Your task to perform on an android device: turn on translation in the chrome app Image 0: 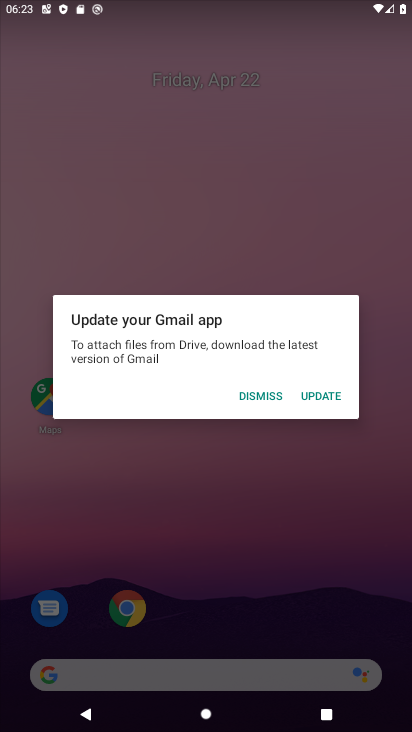
Step 0: drag from (263, 594) to (244, 275)
Your task to perform on an android device: turn on translation in the chrome app Image 1: 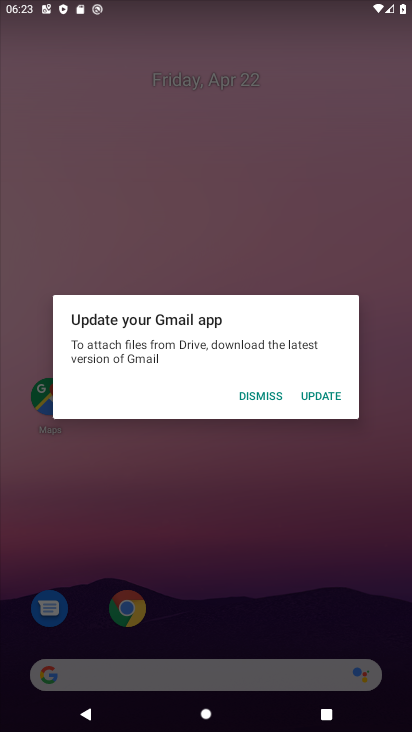
Step 1: press home button
Your task to perform on an android device: turn on translation in the chrome app Image 2: 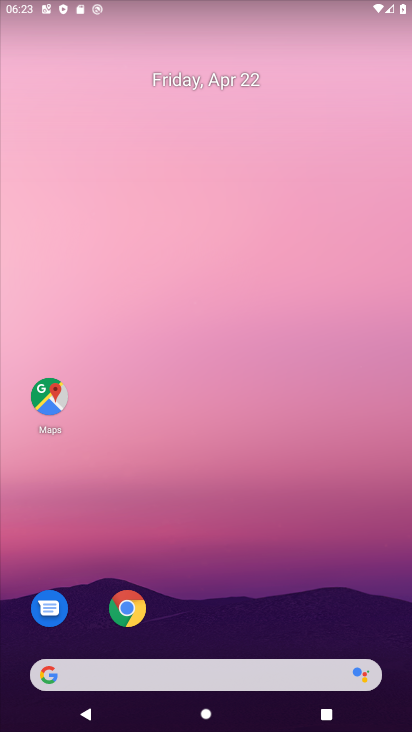
Step 2: drag from (237, 576) to (209, 268)
Your task to perform on an android device: turn on translation in the chrome app Image 3: 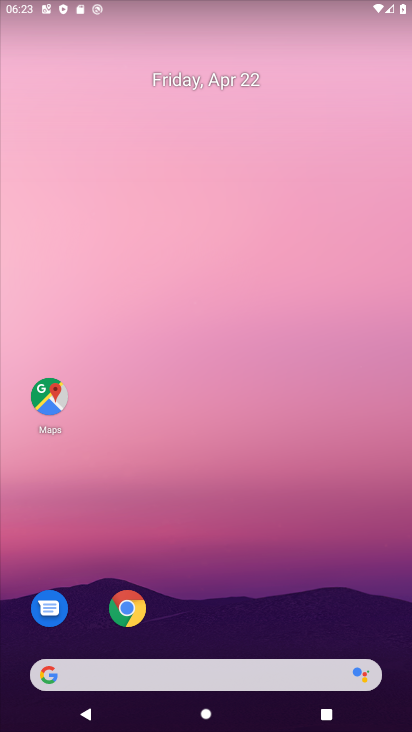
Step 3: drag from (229, 549) to (237, 189)
Your task to perform on an android device: turn on translation in the chrome app Image 4: 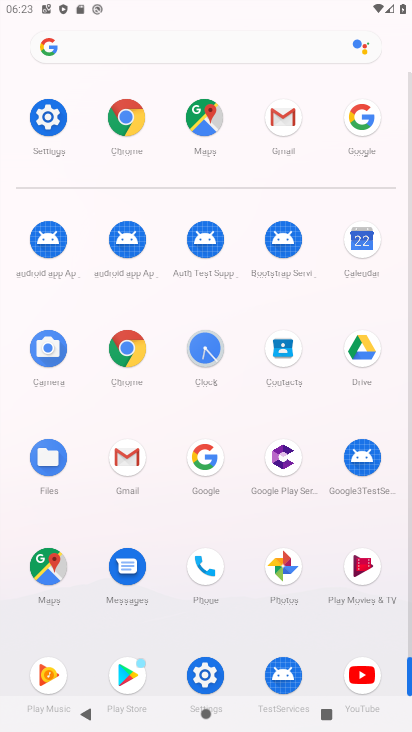
Step 4: click (120, 132)
Your task to perform on an android device: turn on translation in the chrome app Image 5: 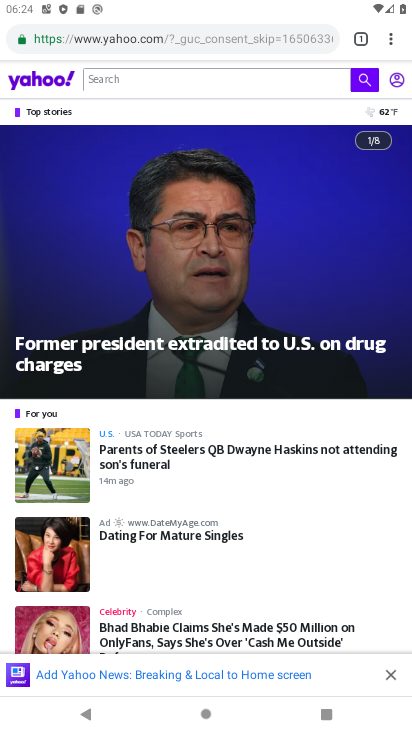
Step 5: click (392, 39)
Your task to perform on an android device: turn on translation in the chrome app Image 6: 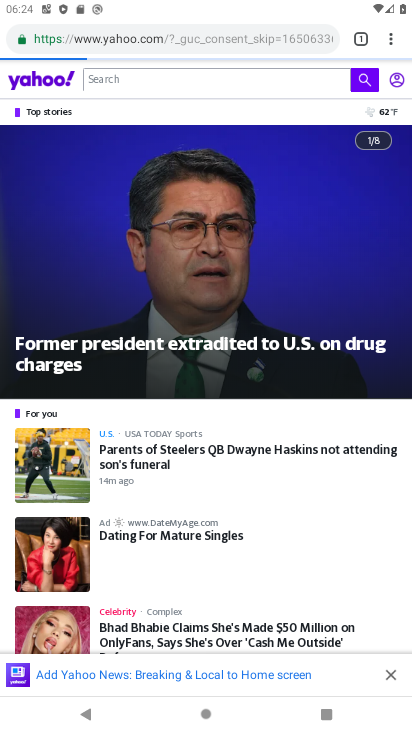
Step 6: click (391, 41)
Your task to perform on an android device: turn on translation in the chrome app Image 7: 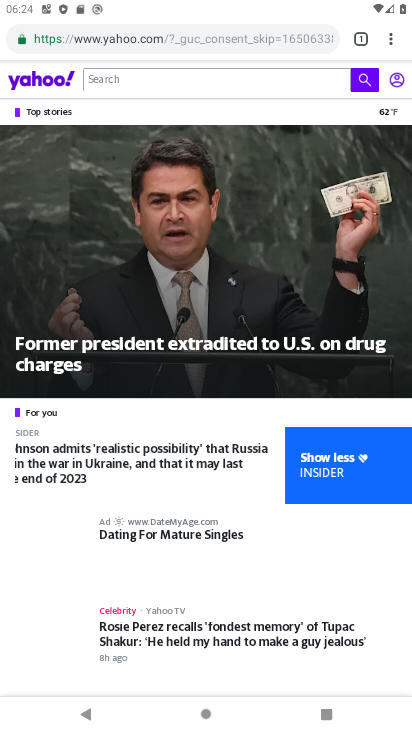
Step 7: click (391, 41)
Your task to perform on an android device: turn on translation in the chrome app Image 8: 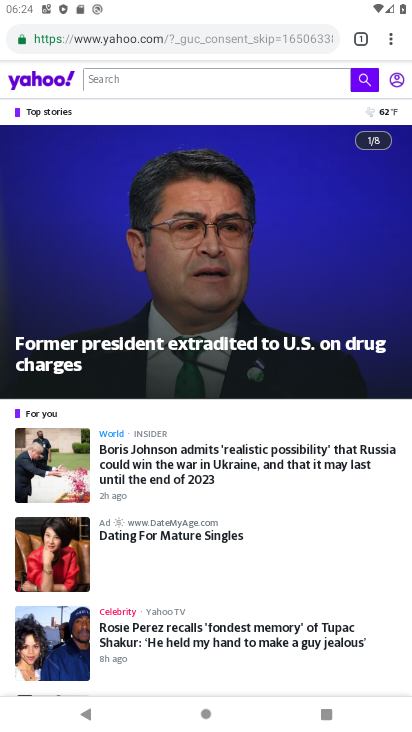
Step 8: click (392, 41)
Your task to perform on an android device: turn on translation in the chrome app Image 9: 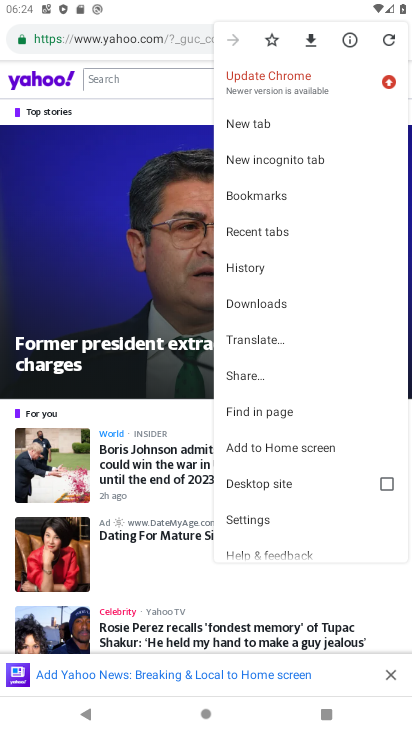
Step 9: click (264, 517)
Your task to perform on an android device: turn on translation in the chrome app Image 10: 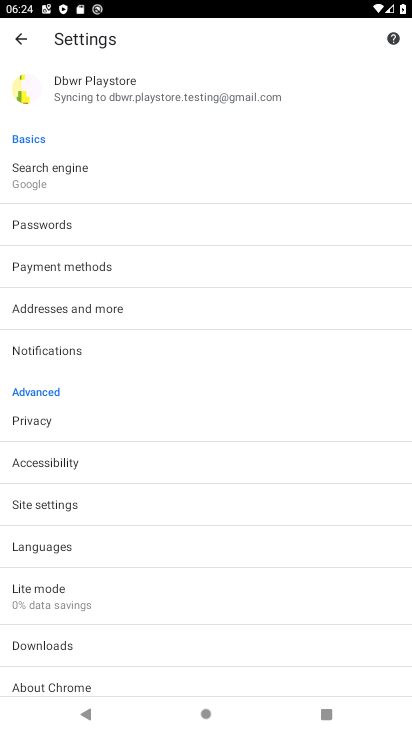
Step 10: click (46, 552)
Your task to perform on an android device: turn on translation in the chrome app Image 11: 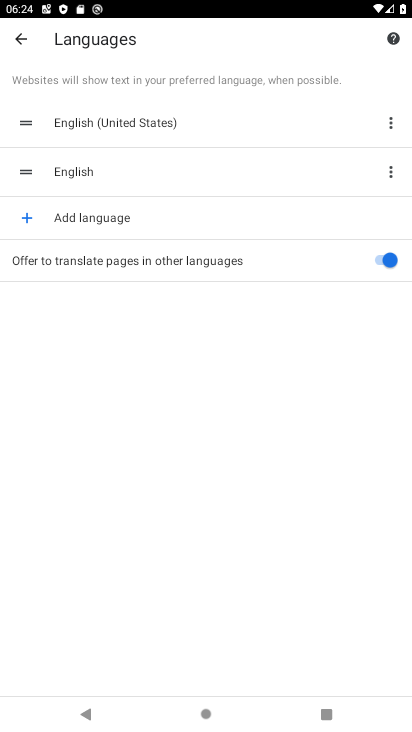
Step 11: task complete